Your task to perform on an android device: Open calendar and show me the third week of next month Image 0: 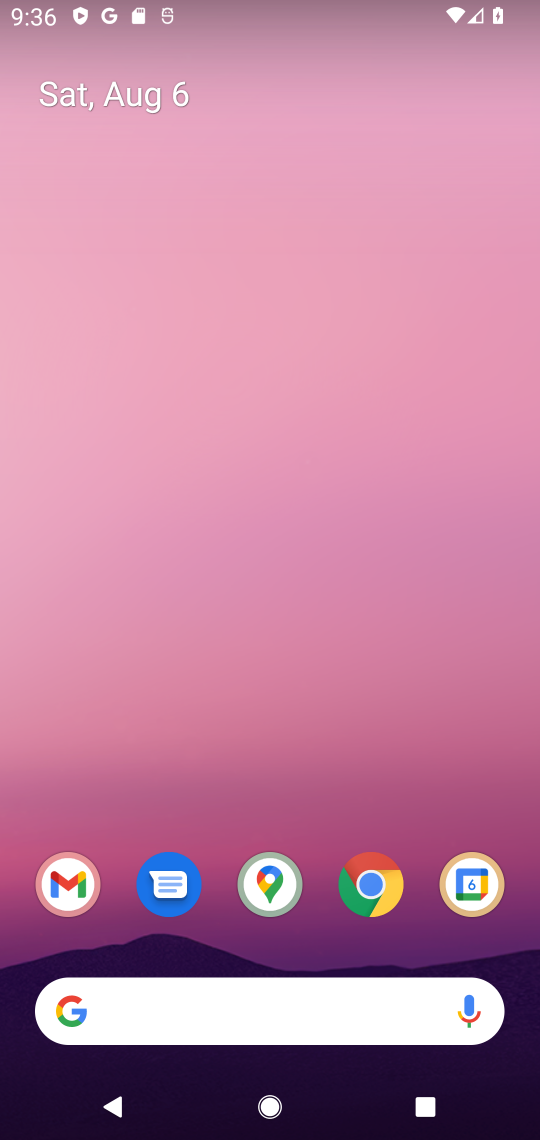
Step 0: click (471, 887)
Your task to perform on an android device: Open calendar and show me the third week of next month Image 1: 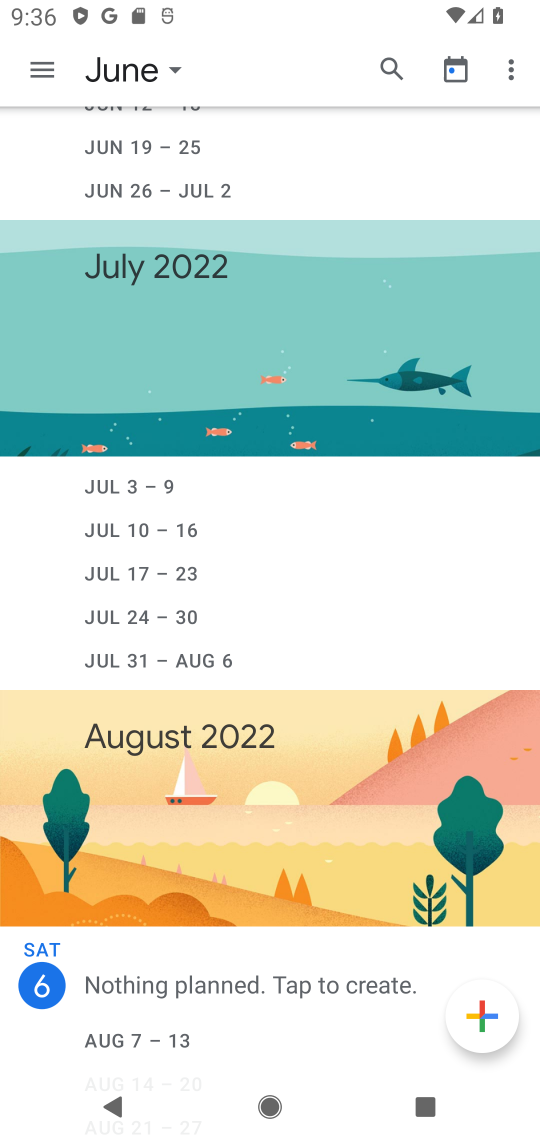
Step 1: click (47, 65)
Your task to perform on an android device: Open calendar and show me the third week of next month Image 2: 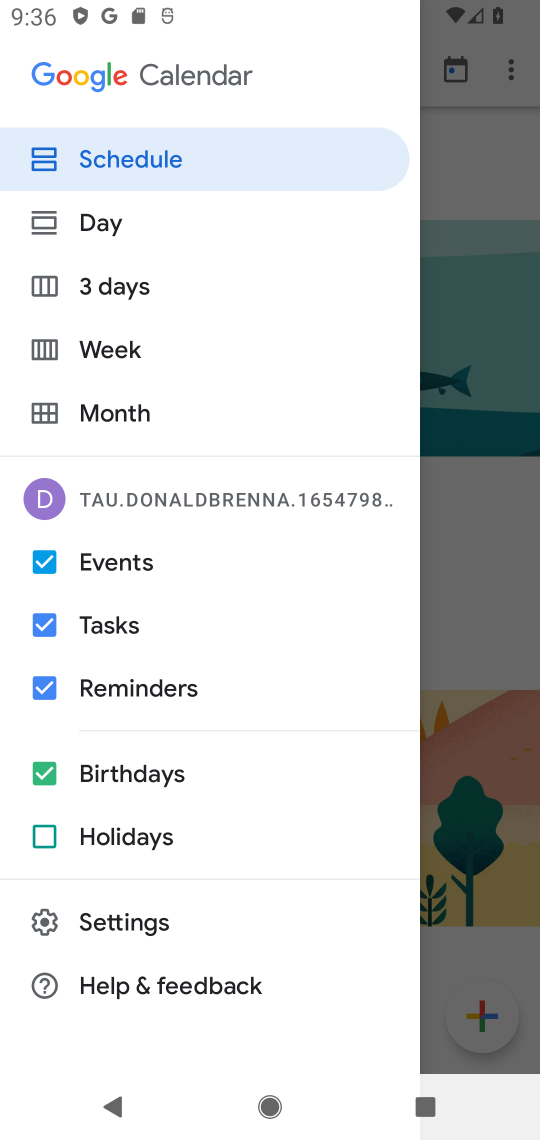
Step 2: click (115, 352)
Your task to perform on an android device: Open calendar and show me the third week of next month Image 3: 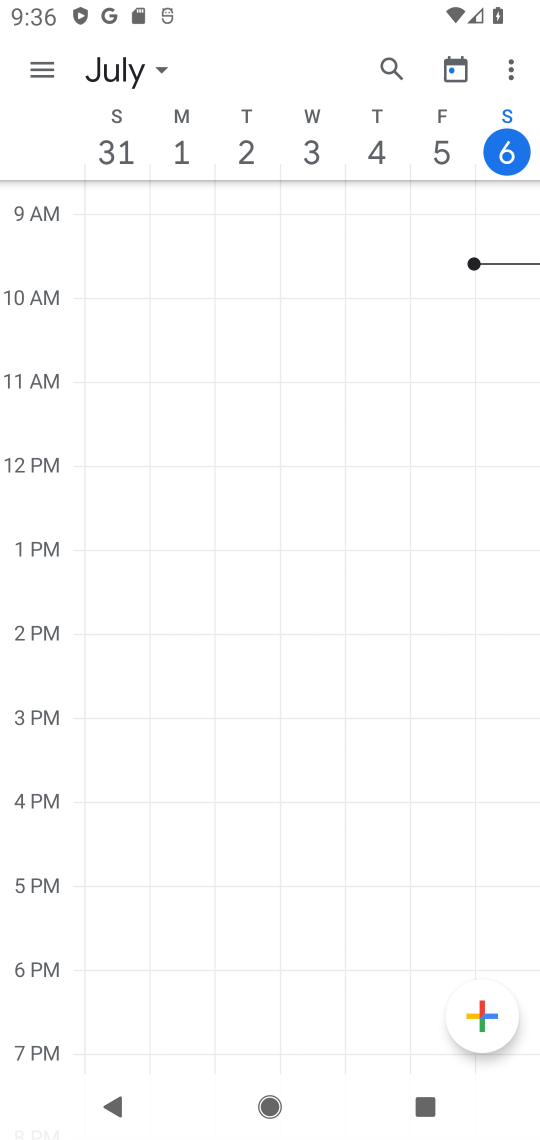
Step 3: click (166, 73)
Your task to perform on an android device: Open calendar and show me the third week of next month Image 4: 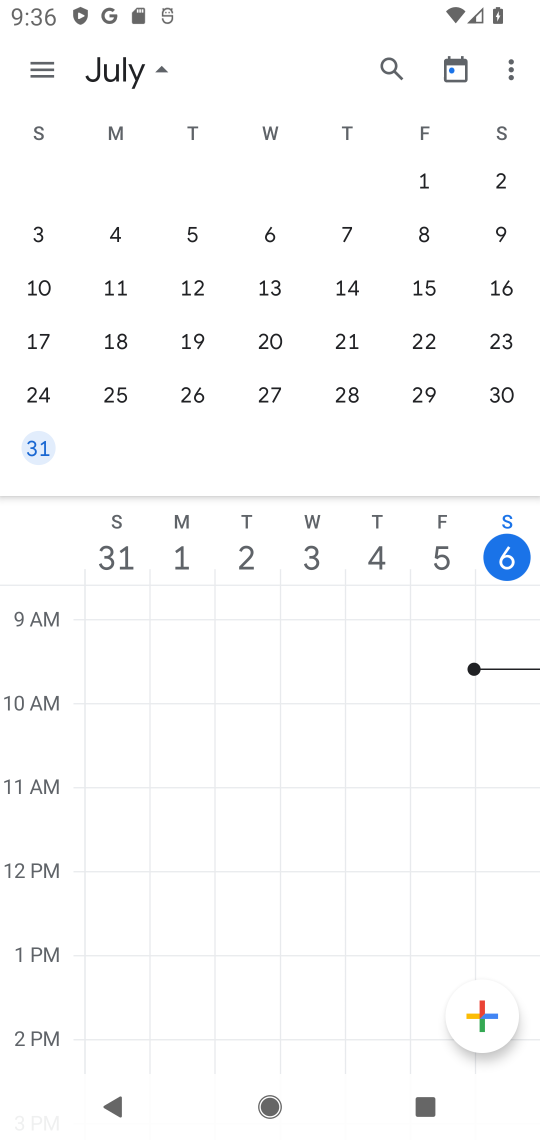
Step 4: drag from (510, 361) to (11, 272)
Your task to perform on an android device: Open calendar and show me the third week of next month Image 5: 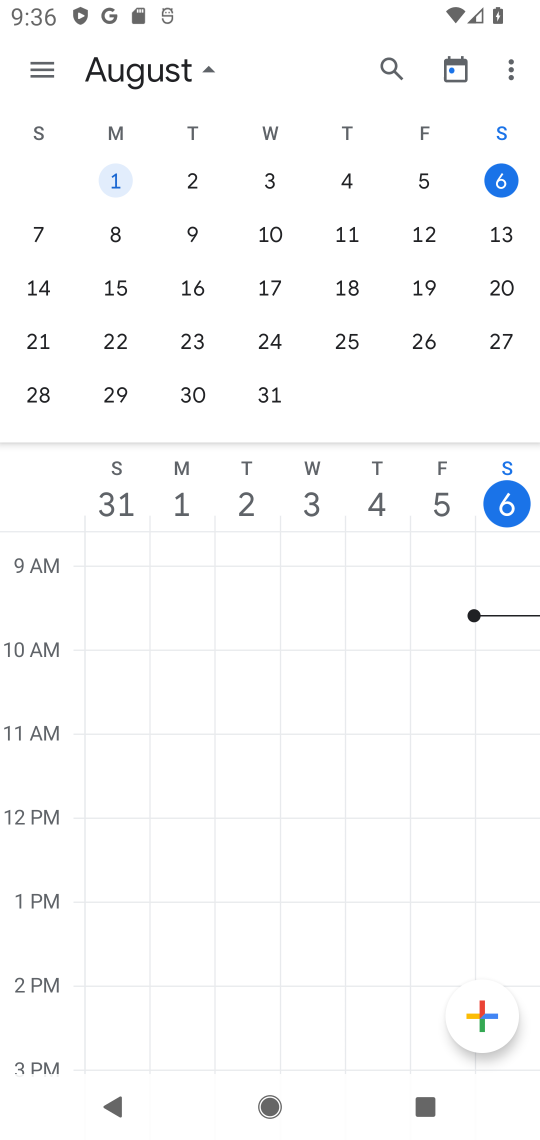
Step 5: drag from (505, 290) to (0, 295)
Your task to perform on an android device: Open calendar and show me the third week of next month Image 6: 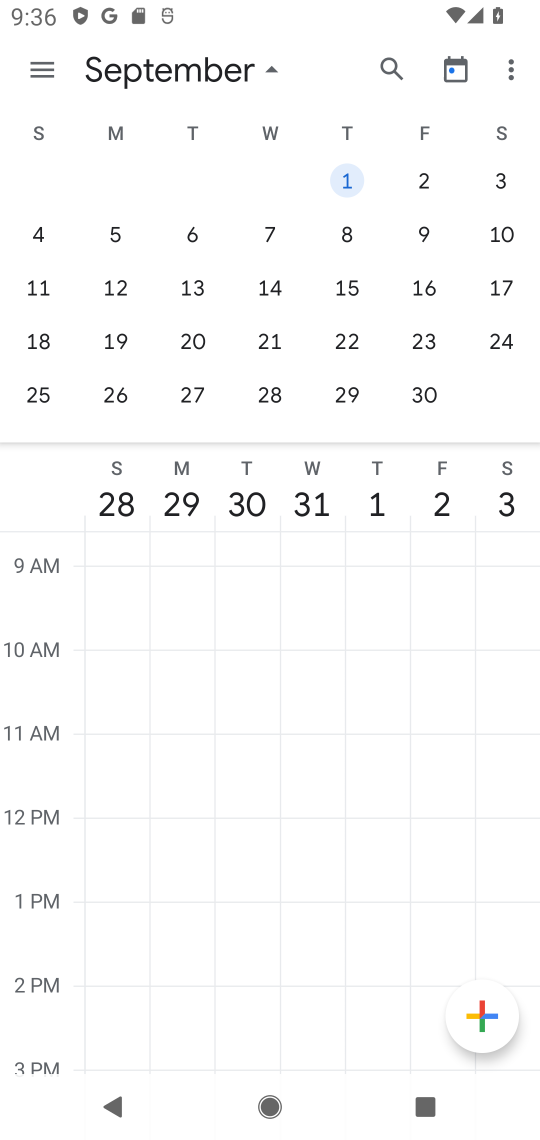
Step 6: click (35, 336)
Your task to perform on an android device: Open calendar and show me the third week of next month Image 7: 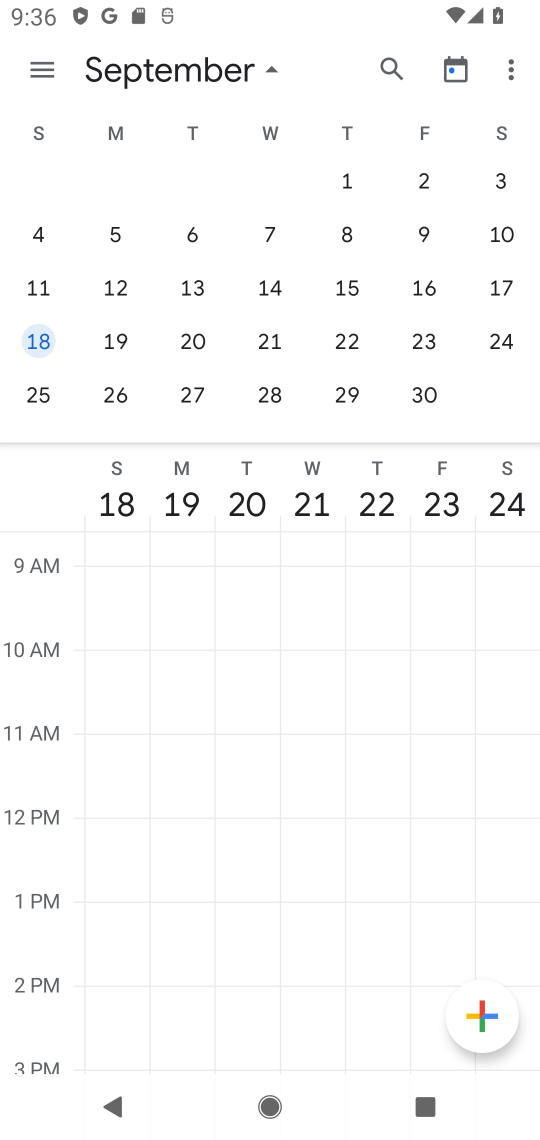
Step 7: task complete